Your task to perform on an android device: move an email to a new category in the gmail app Image 0: 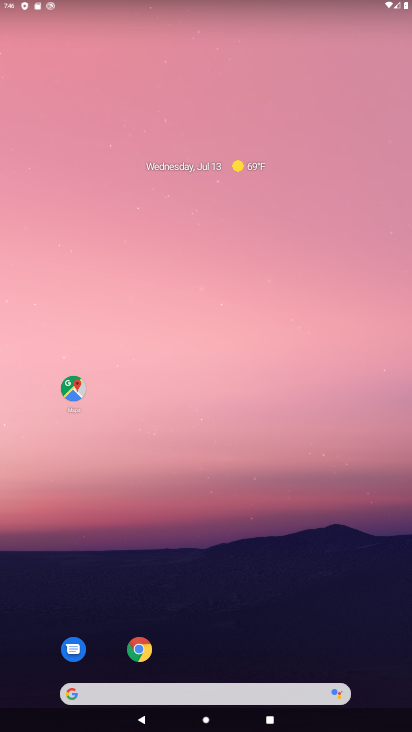
Step 0: drag from (183, 699) to (192, 165)
Your task to perform on an android device: move an email to a new category in the gmail app Image 1: 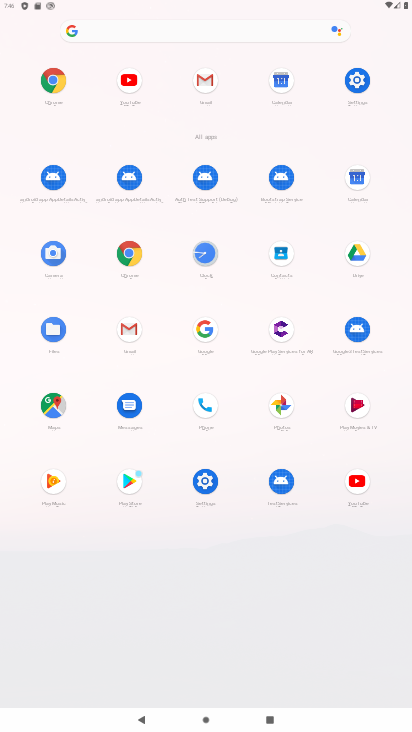
Step 1: click (205, 78)
Your task to perform on an android device: move an email to a new category in the gmail app Image 2: 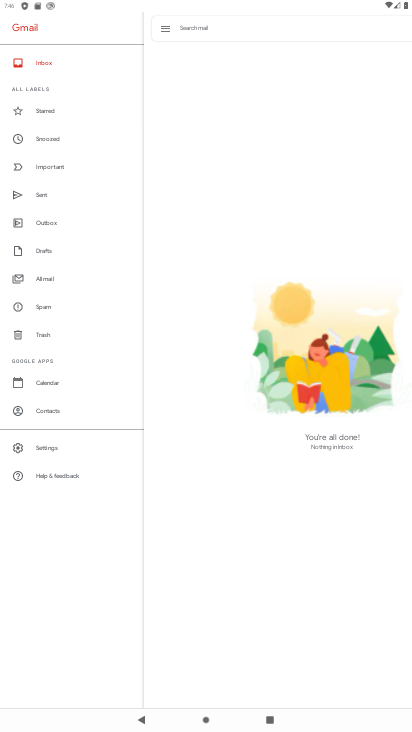
Step 2: click (38, 274)
Your task to perform on an android device: move an email to a new category in the gmail app Image 3: 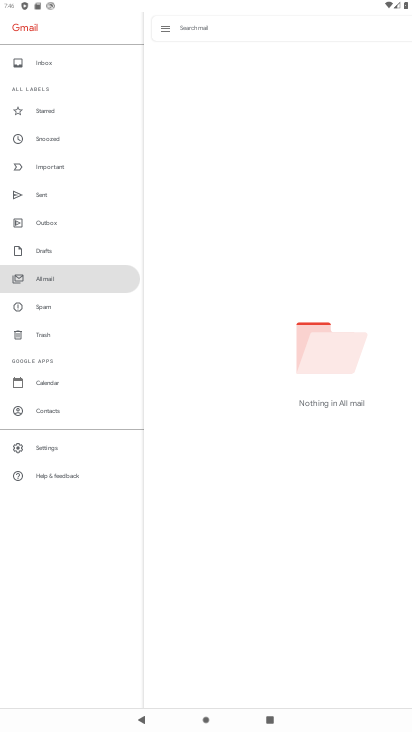
Step 3: click (42, 248)
Your task to perform on an android device: move an email to a new category in the gmail app Image 4: 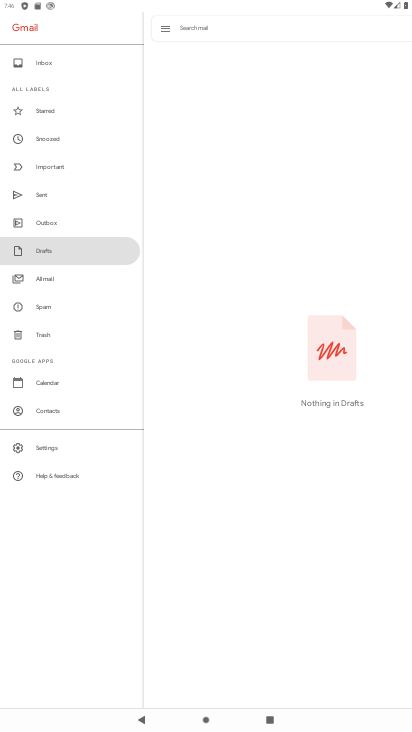
Step 4: click (42, 221)
Your task to perform on an android device: move an email to a new category in the gmail app Image 5: 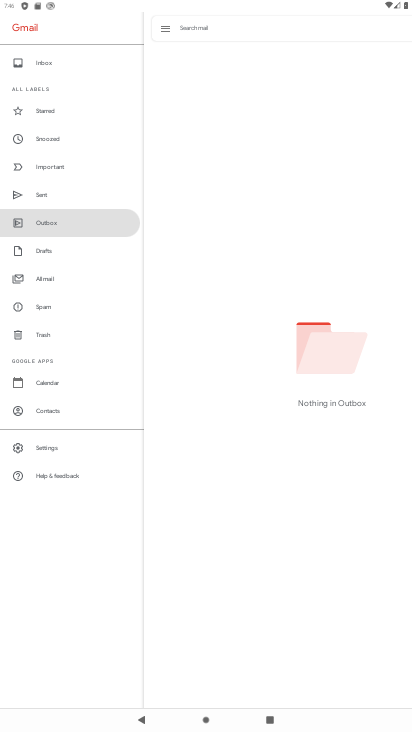
Step 5: click (42, 197)
Your task to perform on an android device: move an email to a new category in the gmail app Image 6: 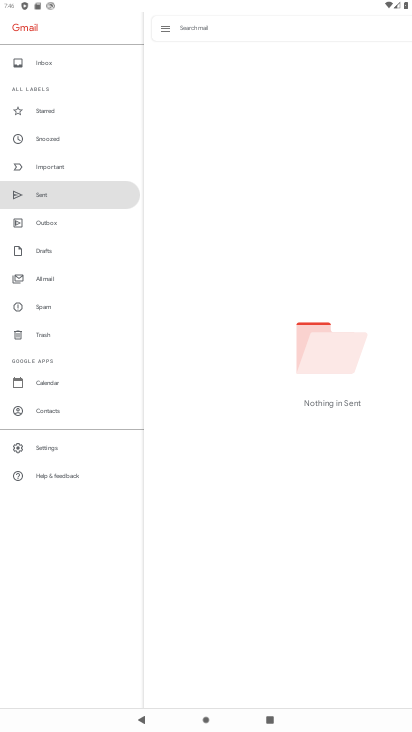
Step 6: click (43, 169)
Your task to perform on an android device: move an email to a new category in the gmail app Image 7: 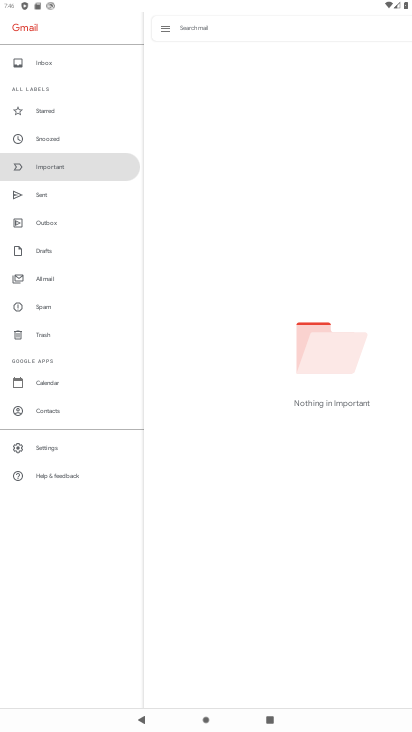
Step 7: click (39, 127)
Your task to perform on an android device: move an email to a new category in the gmail app Image 8: 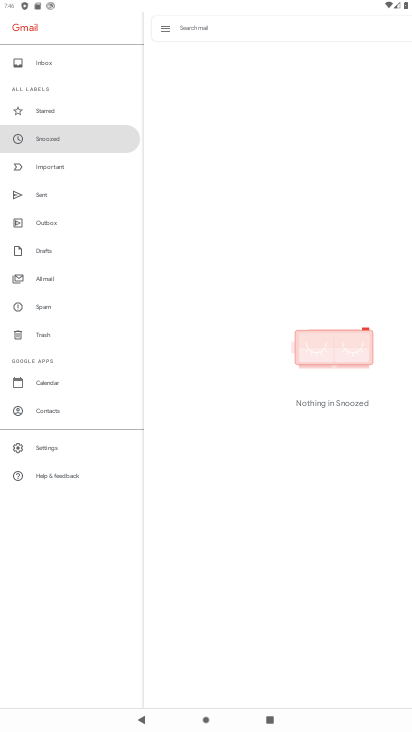
Step 8: click (42, 110)
Your task to perform on an android device: move an email to a new category in the gmail app Image 9: 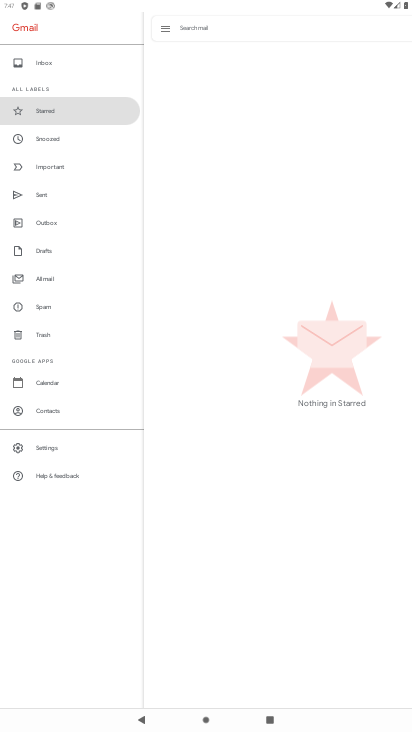
Step 9: click (47, 64)
Your task to perform on an android device: move an email to a new category in the gmail app Image 10: 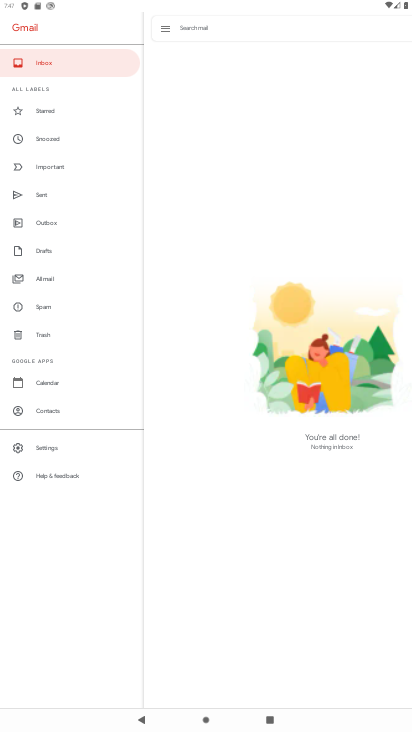
Step 10: task complete